Your task to perform on an android device: Go to Reddit.com Image 0: 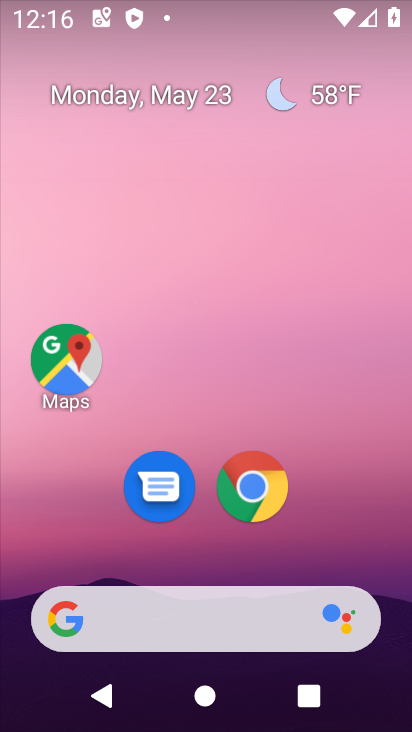
Step 0: click (250, 486)
Your task to perform on an android device: Go to Reddit.com Image 1: 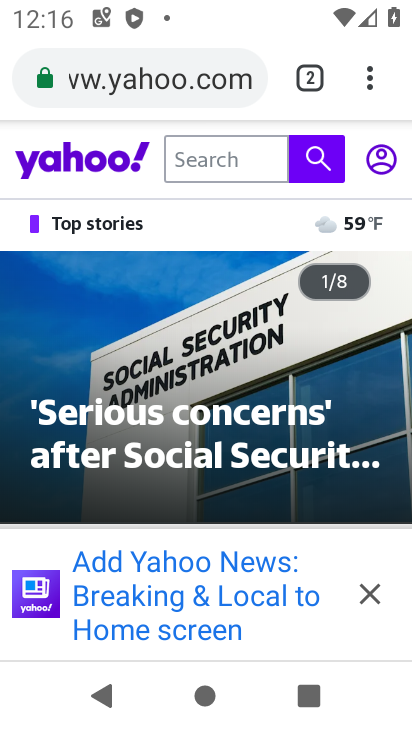
Step 1: click (181, 57)
Your task to perform on an android device: Go to Reddit.com Image 2: 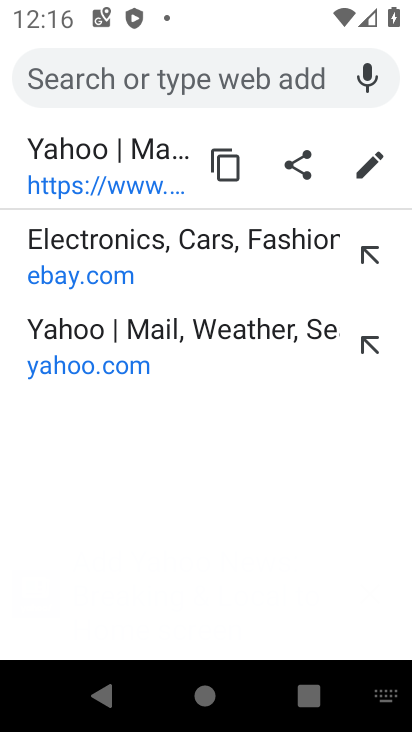
Step 2: type "reddit.com"
Your task to perform on an android device: Go to Reddit.com Image 3: 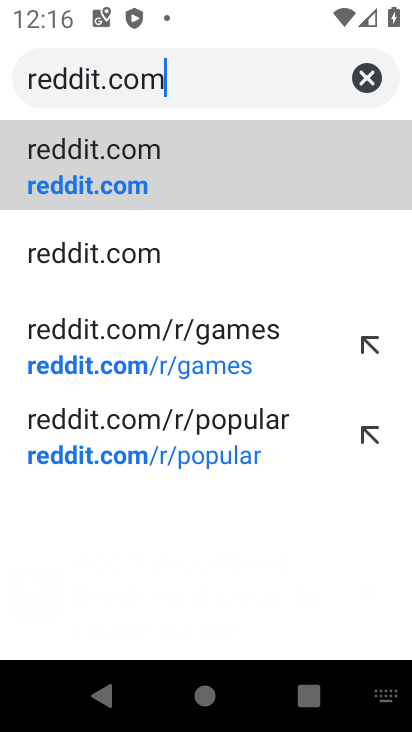
Step 3: click (50, 174)
Your task to perform on an android device: Go to Reddit.com Image 4: 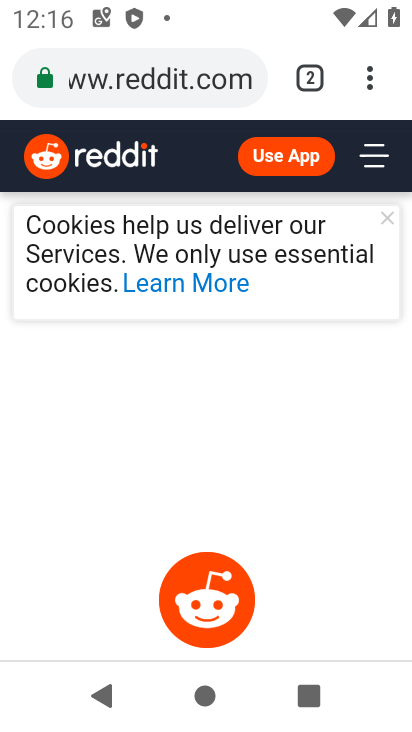
Step 4: task complete